Your task to perform on an android device: snooze an email in the gmail app Image 0: 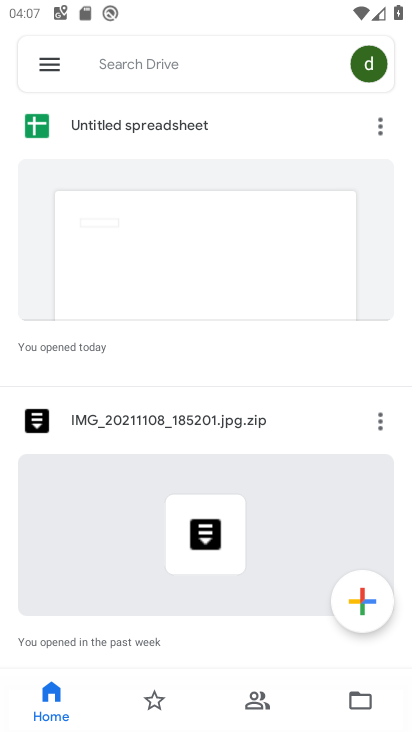
Step 0: press home button
Your task to perform on an android device: snooze an email in the gmail app Image 1: 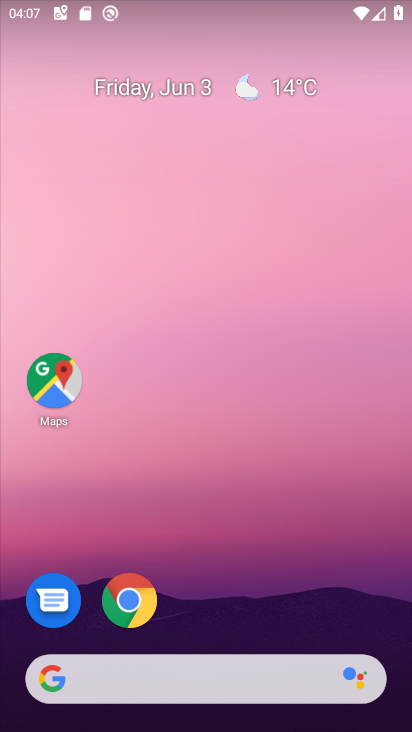
Step 1: drag from (229, 616) to (177, 142)
Your task to perform on an android device: snooze an email in the gmail app Image 2: 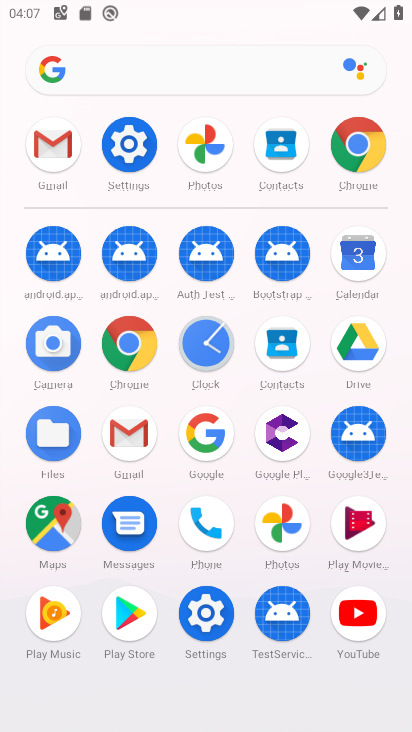
Step 2: click (59, 136)
Your task to perform on an android device: snooze an email in the gmail app Image 3: 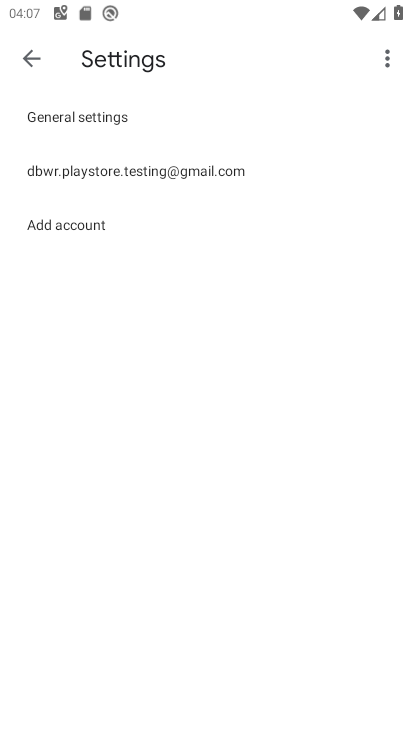
Step 3: click (45, 51)
Your task to perform on an android device: snooze an email in the gmail app Image 4: 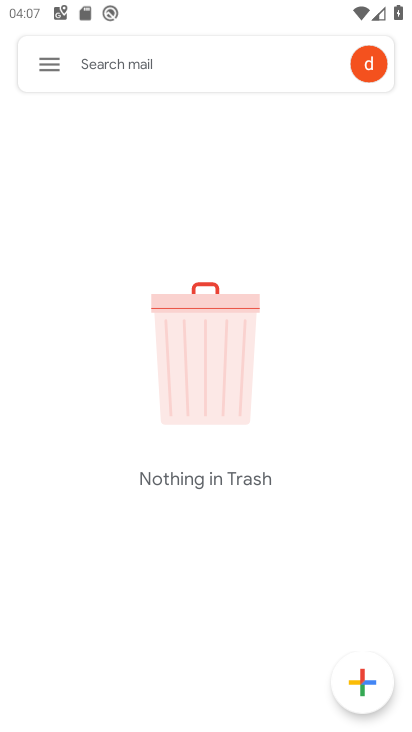
Step 4: click (43, 52)
Your task to perform on an android device: snooze an email in the gmail app Image 5: 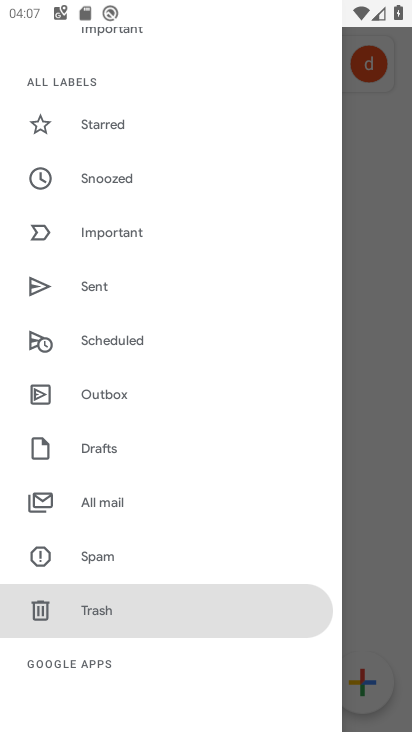
Step 5: click (114, 505)
Your task to perform on an android device: snooze an email in the gmail app Image 6: 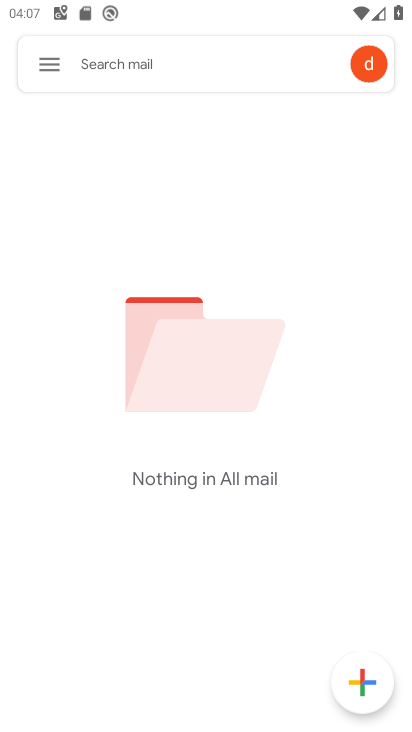
Step 6: task complete